Your task to perform on an android device: Search for lg ultragear on ebay, select the first entry, and add it to the cart. Image 0: 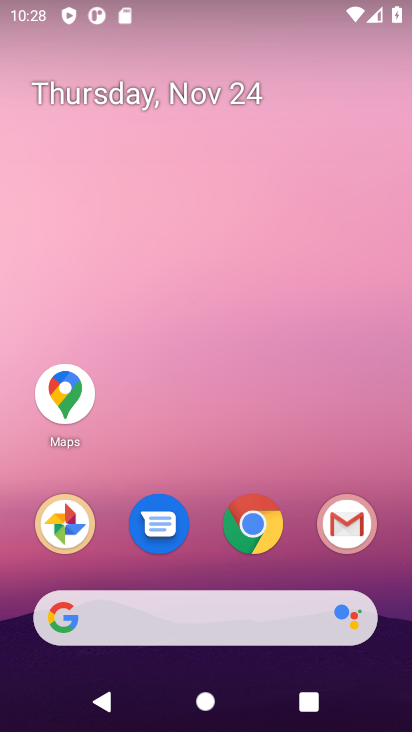
Step 0: click (254, 526)
Your task to perform on an android device: Search for lg ultragear on ebay, select the first entry, and add it to the cart. Image 1: 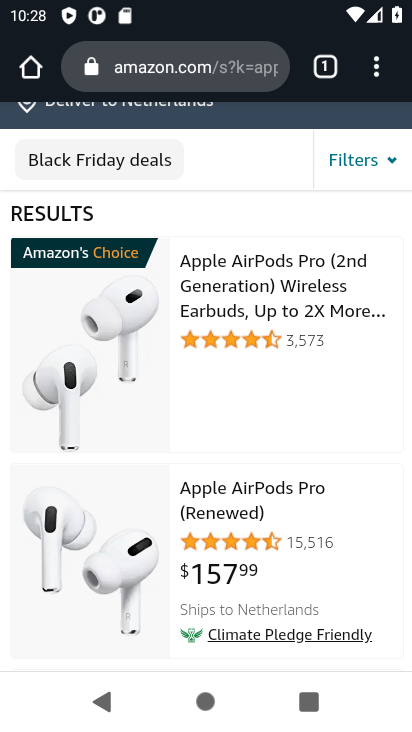
Step 1: click (136, 75)
Your task to perform on an android device: Search for lg ultragear on ebay, select the first entry, and add it to the cart. Image 2: 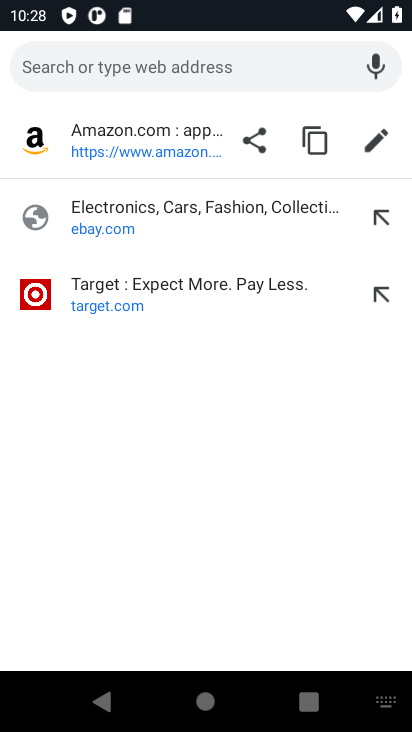
Step 2: click (89, 228)
Your task to perform on an android device: Search for lg ultragear on ebay, select the first entry, and add it to the cart. Image 3: 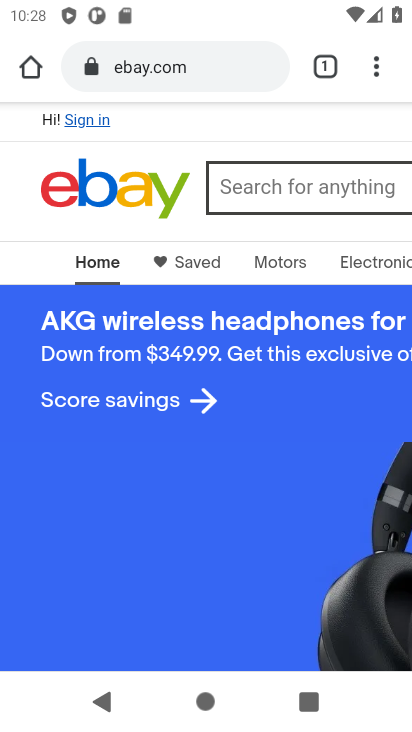
Step 3: click (301, 189)
Your task to perform on an android device: Search for lg ultragear on ebay, select the first entry, and add it to the cart. Image 4: 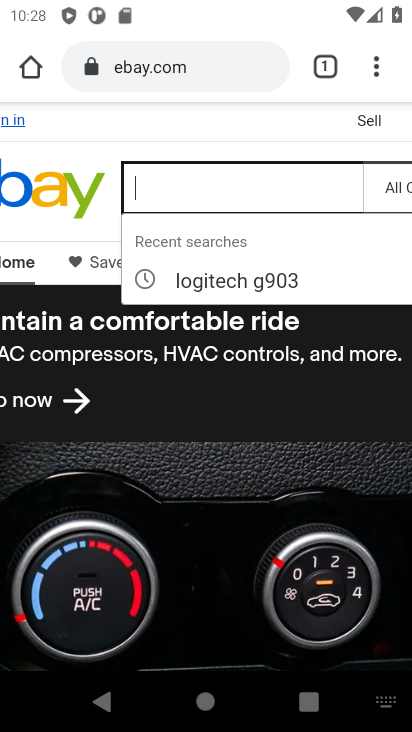
Step 4: type "lg ultragear"
Your task to perform on an android device: Search for lg ultragear on ebay, select the first entry, and add it to the cart. Image 5: 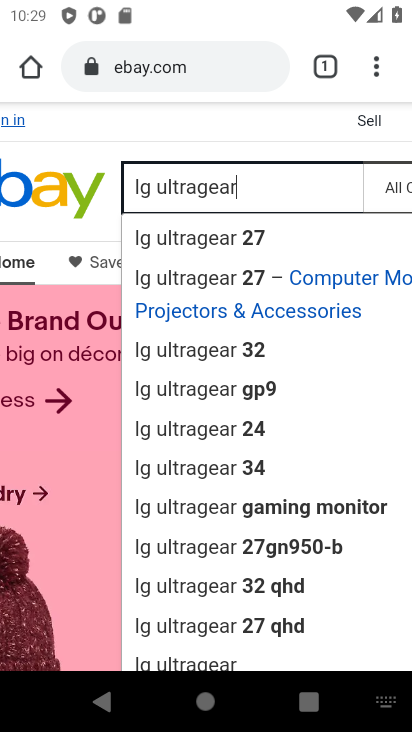
Step 5: click (217, 247)
Your task to perform on an android device: Search for lg ultragear on ebay, select the first entry, and add it to the cart. Image 6: 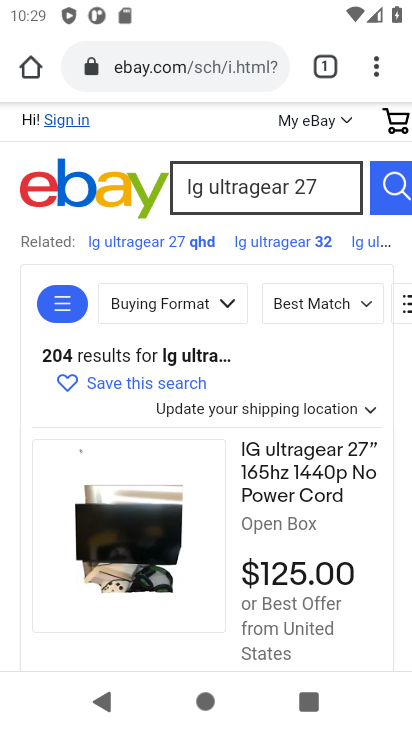
Step 6: drag from (227, 573) to (196, 282)
Your task to perform on an android device: Search for lg ultragear on ebay, select the first entry, and add it to the cart. Image 7: 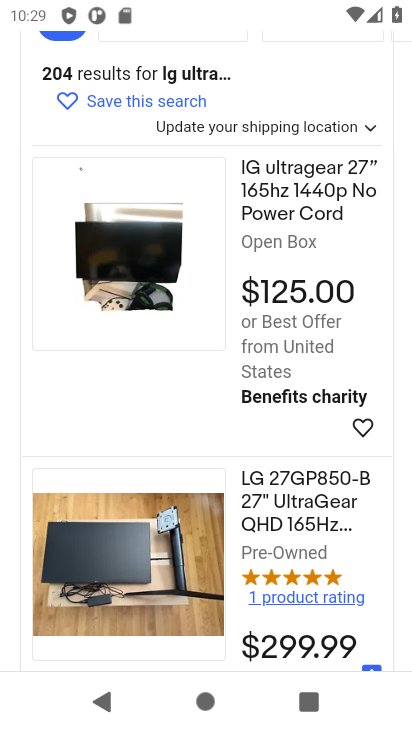
Step 7: click (165, 275)
Your task to perform on an android device: Search for lg ultragear on ebay, select the first entry, and add it to the cart. Image 8: 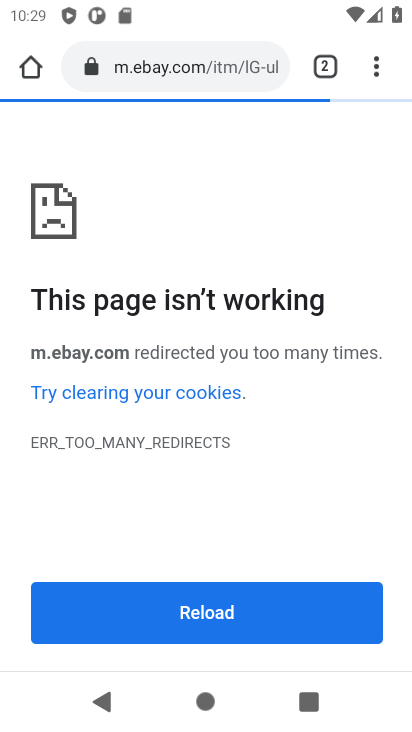
Step 8: task complete